Your task to perform on an android device: open app "Google Duo" Image 0: 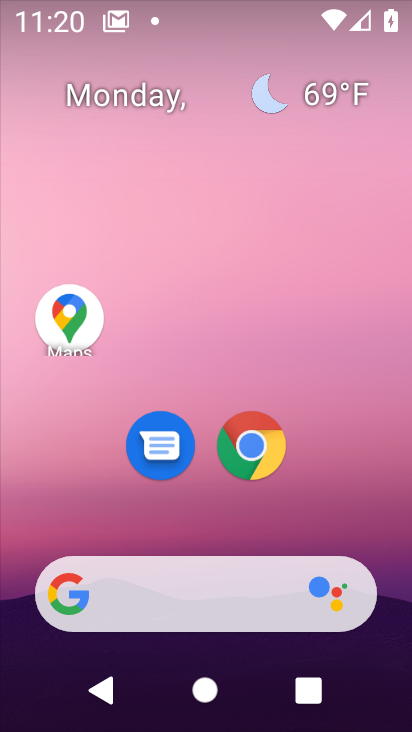
Step 0: drag from (219, 606) to (238, 150)
Your task to perform on an android device: open app "Google Duo" Image 1: 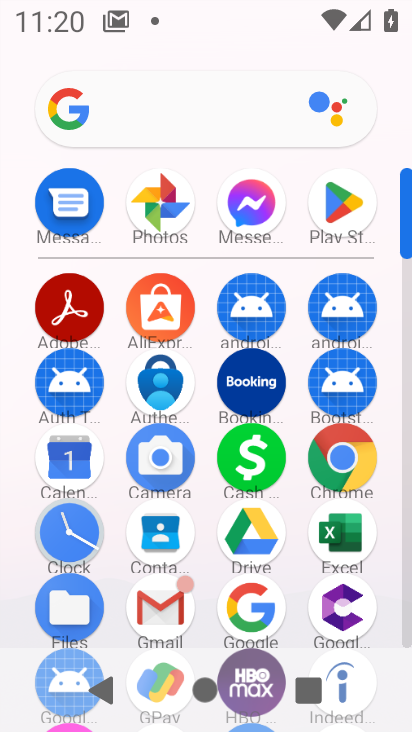
Step 1: click (358, 213)
Your task to perform on an android device: open app "Google Duo" Image 2: 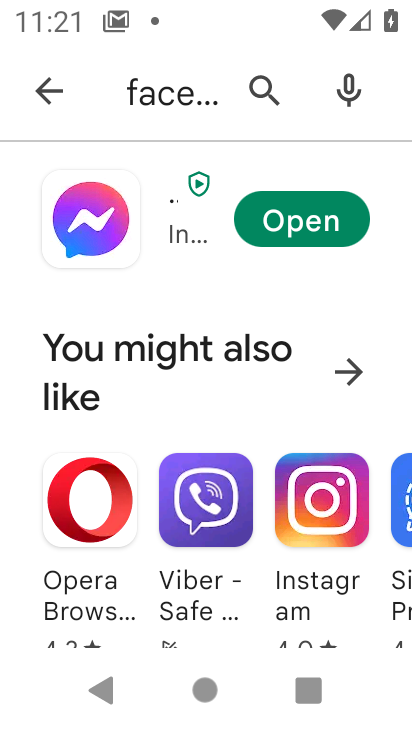
Step 2: click (50, 87)
Your task to perform on an android device: open app "Google Duo" Image 3: 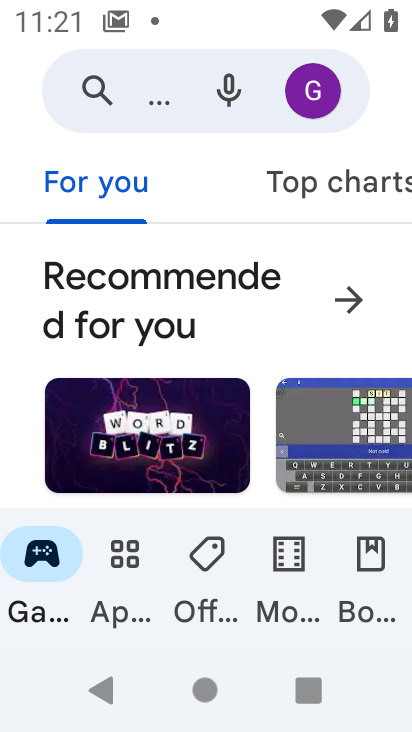
Step 3: click (128, 96)
Your task to perform on an android device: open app "Google Duo" Image 4: 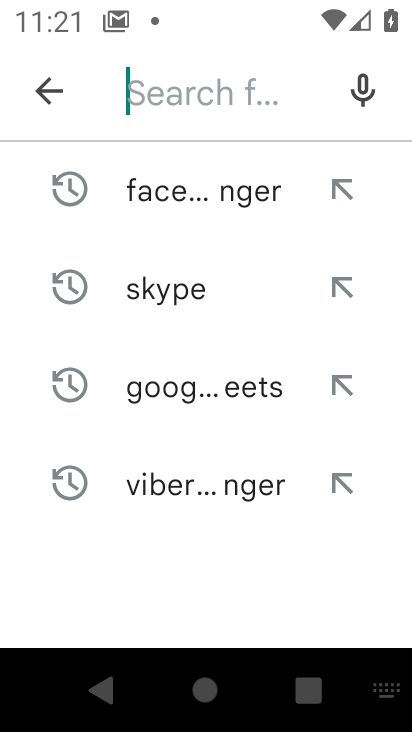
Step 4: type "Google Duo"
Your task to perform on an android device: open app "Google Duo" Image 5: 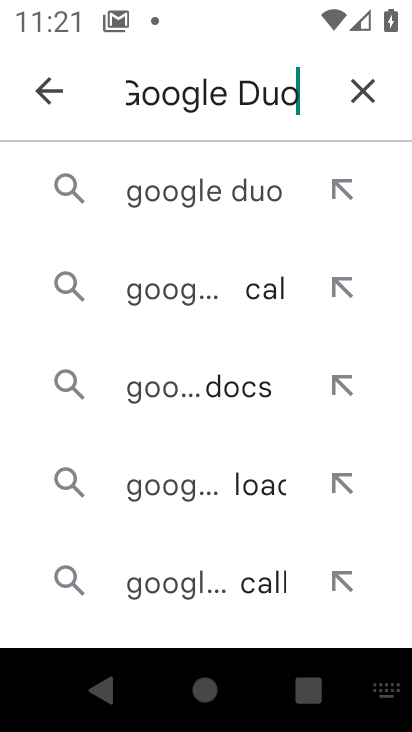
Step 5: click (223, 193)
Your task to perform on an android device: open app "Google Duo" Image 6: 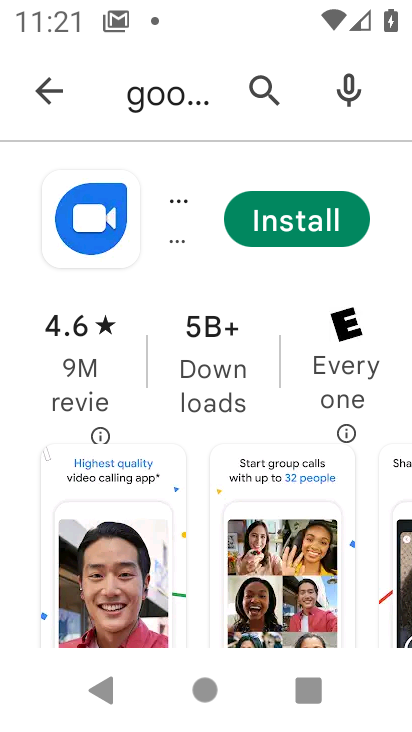
Step 6: task complete